Your task to perform on an android device: read, delete, or share a saved page in the chrome app Image 0: 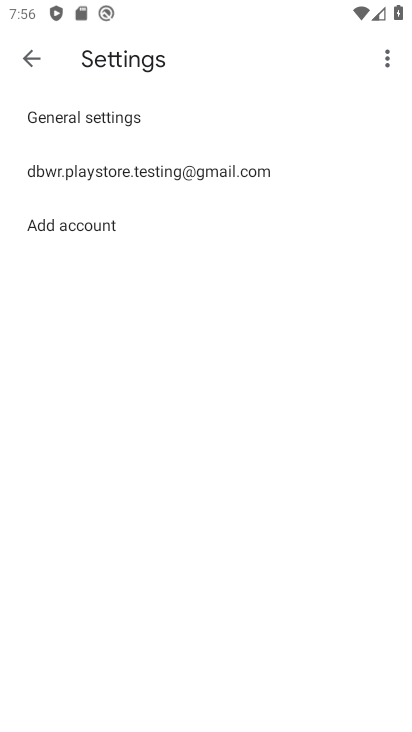
Step 0: press home button
Your task to perform on an android device: read, delete, or share a saved page in the chrome app Image 1: 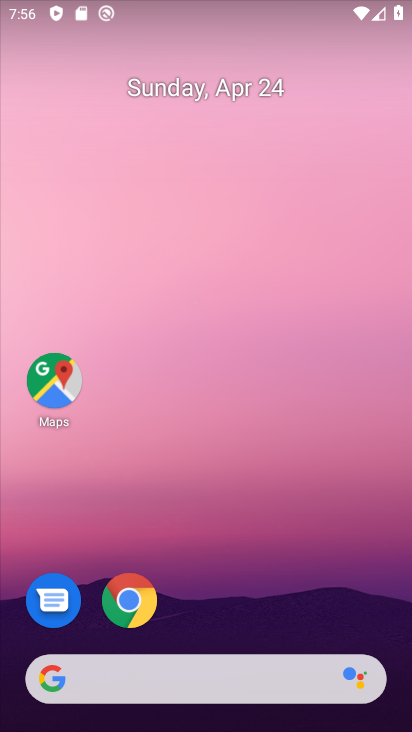
Step 1: click (122, 592)
Your task to perform on an android device: read, delete, or share a saved page in the chrome app Image 2: 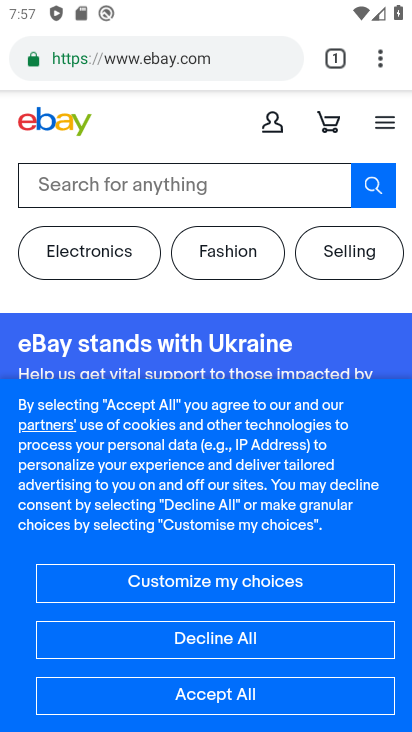
Step 2: drag from (383, 55) to (192, 370)
Your task to perform on an android device: read, delete, or share a saved page in the chrome app Image 3: 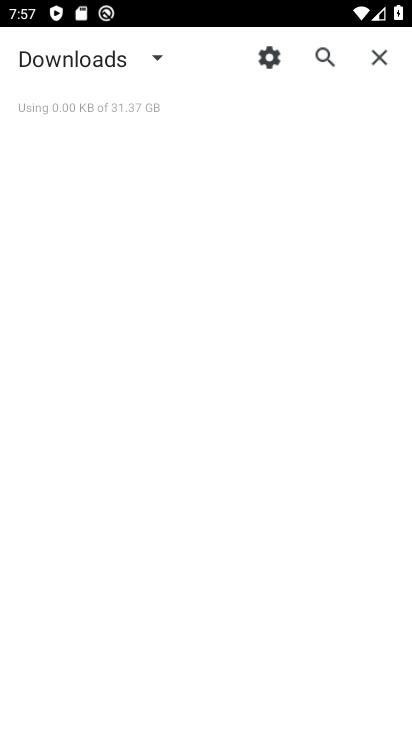
Step 3: click (158, 57)
Your task to perform on an android device: read, delete, or share a saved page in the chrome app Image 4: 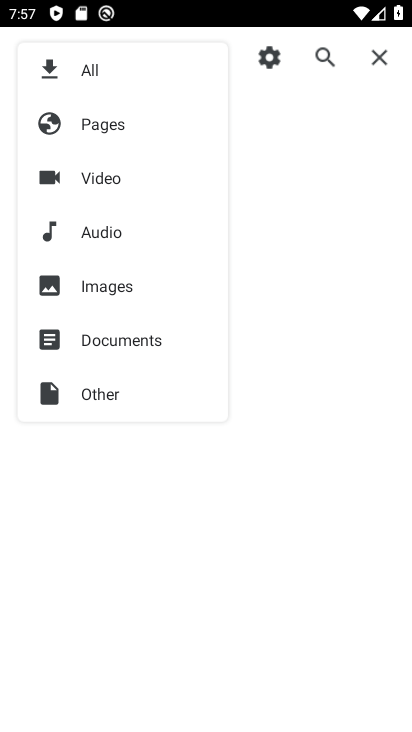
Step 4: click (101, 133)
Your task to perform on an android device: read, delete, or share a saved page in the chrome app Image 5: 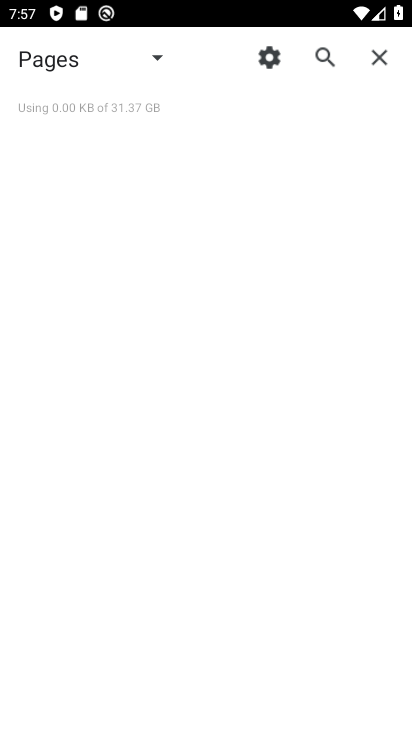
Step 5: task complete